Your task to perform on an android device: Open Youtube and go to "Your channel" Image 0: 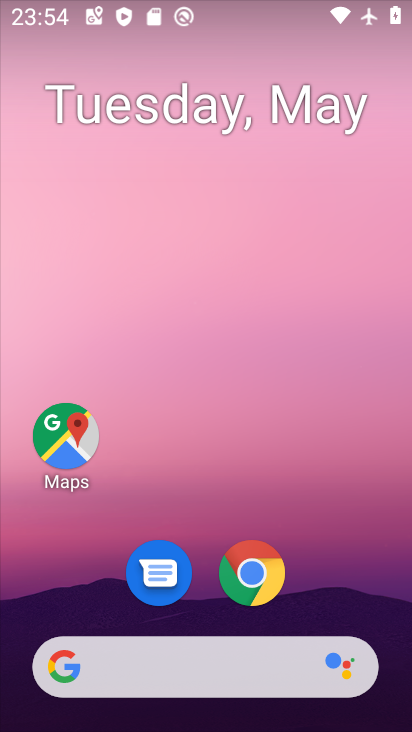
Step 0: drag from (344, 470) to (345, 244)
Your task to perform on an android device: Open Youtube and go to "Your channel" Image 1: 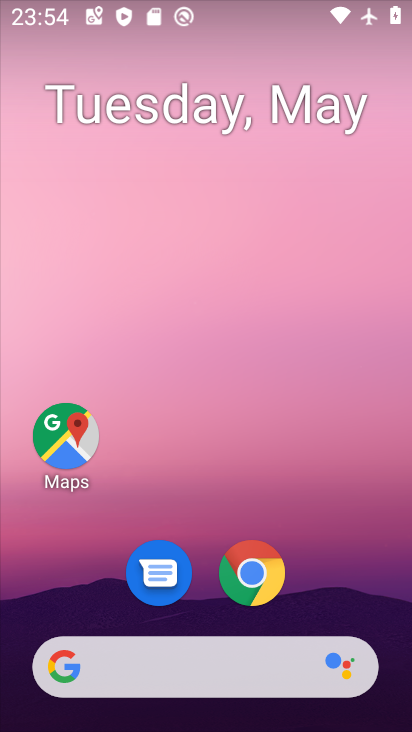
Step 1: drag from (365, 593) to (328, 328)
Your task to perform on an android device: Open Youtube and go to "Your channel" Image 2: 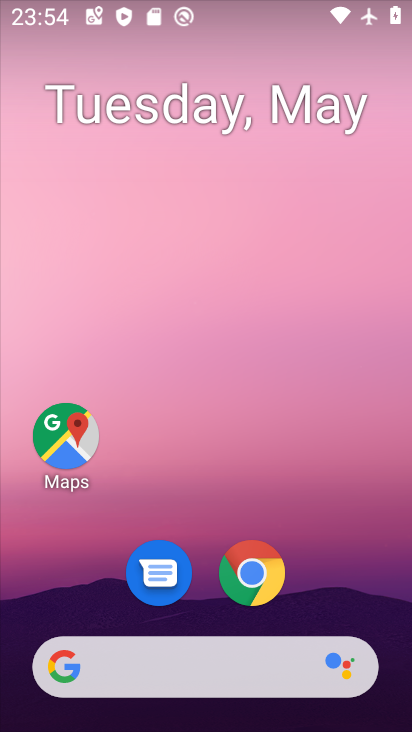
Step 2: drag from (285, 595) to (290, 285)
Your task to perform on an android device: Open Youtube and go to "Your channel" Image 3: 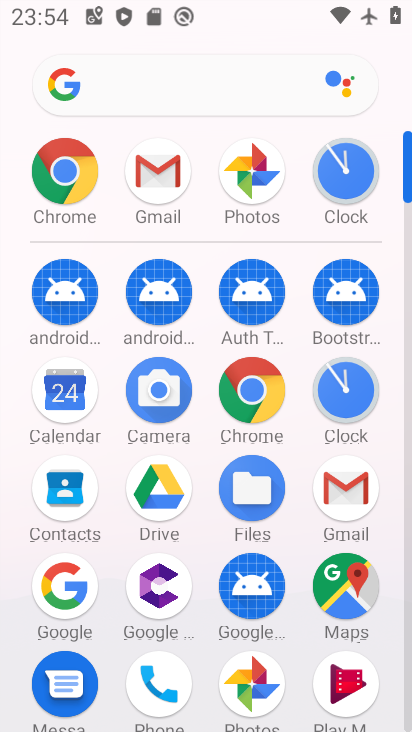
Step 3: drag from (309, 623) to (291, 298)
Your task to perform on an android device: Open Youtube and go to "Your channel" Image 4: 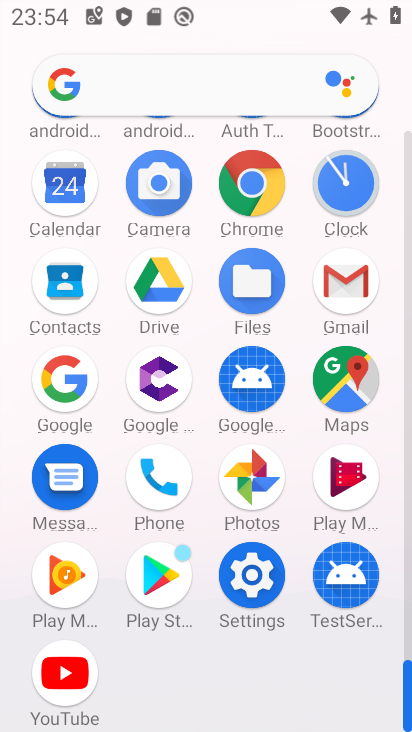
Step 4: click (68, 675)
Your task to perform on an android device: Open Youtube and go to "Your channel" Image 5: 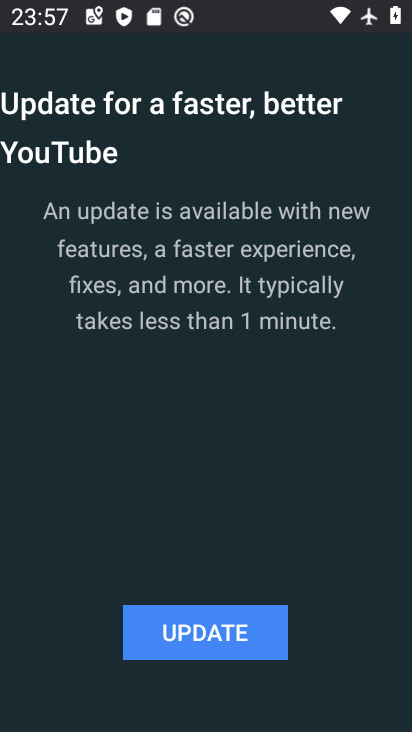
Step 5: task complete